Your task to perform on an android device: Go to Maps Image 0: 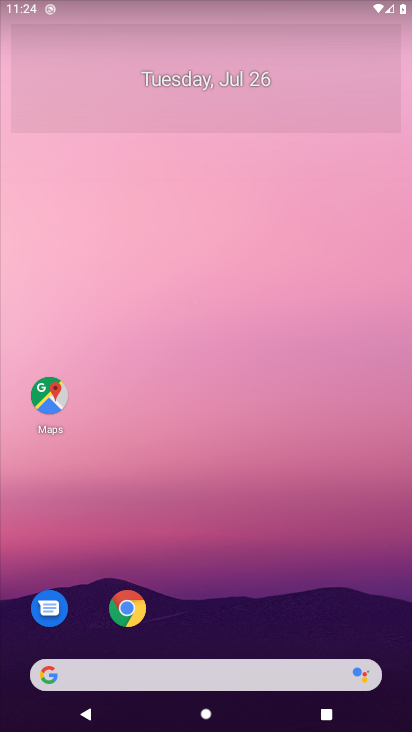
Step 0: press home button
Your task to perform on an android device: Go to Maps Image 1: 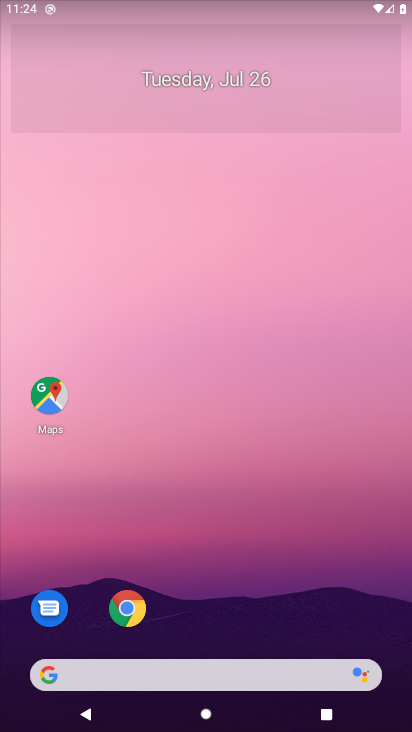
Step 1: click (63, 386)
Your task to perform on an android device: Go to Maps Image 2: 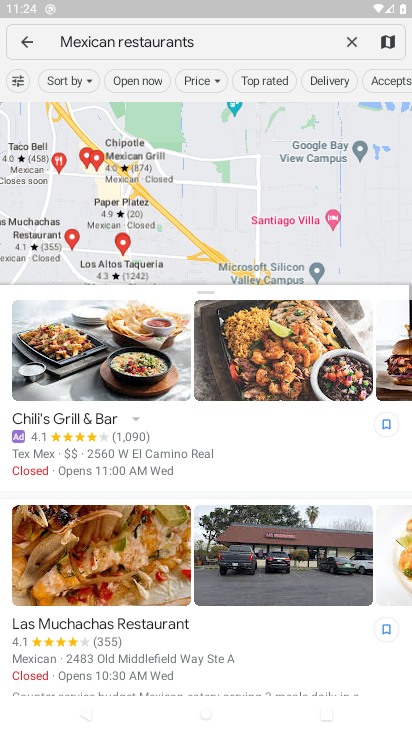
Step 2: click (27, 38)
Your task to perform on an android device: Go to Maps Image 3: 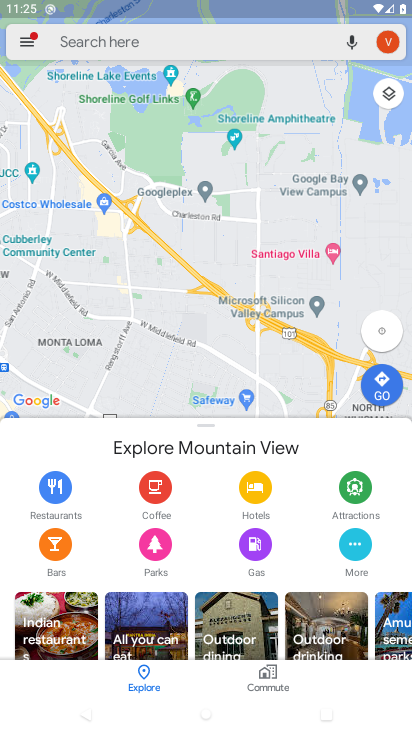
Step 3: task complete